Your task to perform on an android device: Check the news Image 0: 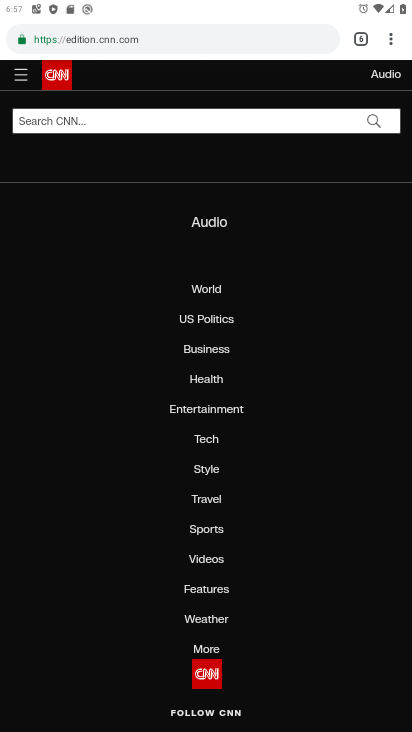
Step 0: press home button
Your task to perform on an android device: Check the news Image 1: 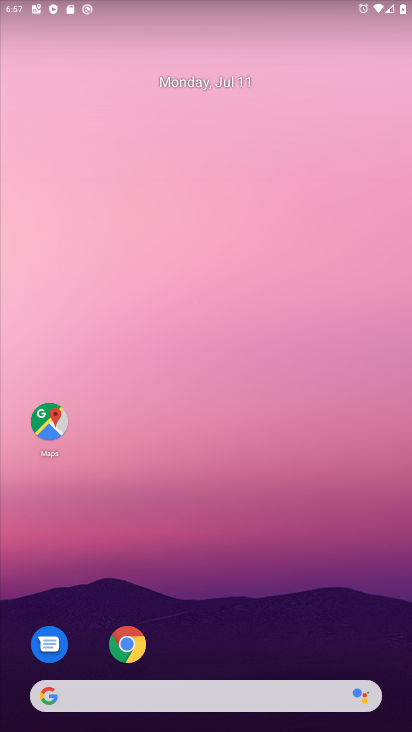
Step 1: drag from (174, 689) to (141, 17)
Your task to perform on an android device: Check the news Image 2: 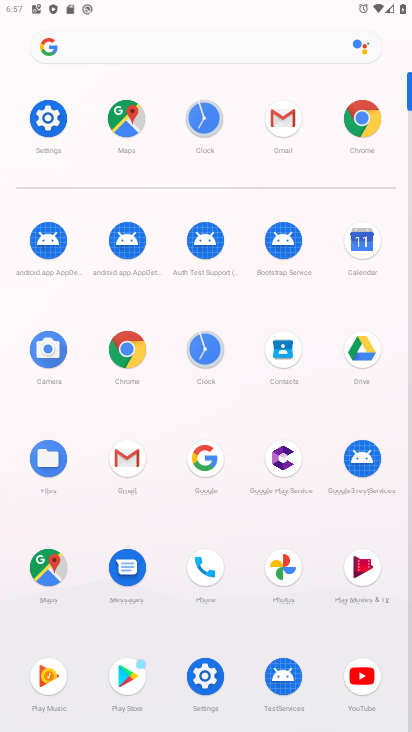
Step 2: click (136, 353)
Your task to perform on an android device: Check the news Image 3: 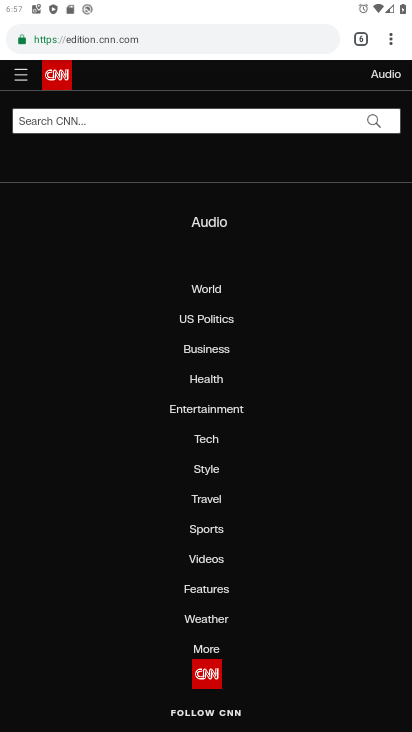
Step 3: click (192, 36)
Your task to perform on an android device: Check the news Image 4: 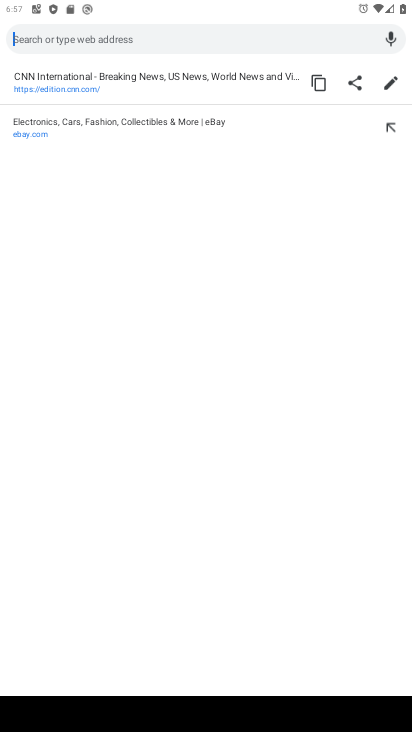
Step 4: type "check the news"
Your task to perform on an android device: Check the news Image 5: 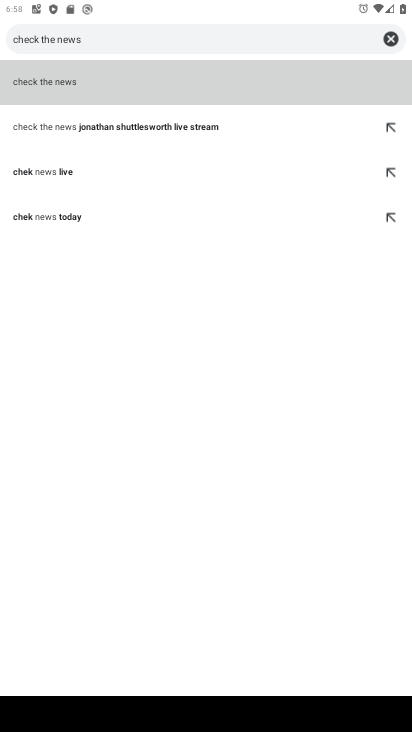
Step 5: click (72, 92)
Your task to perform on an android device: Check the news Image 6: 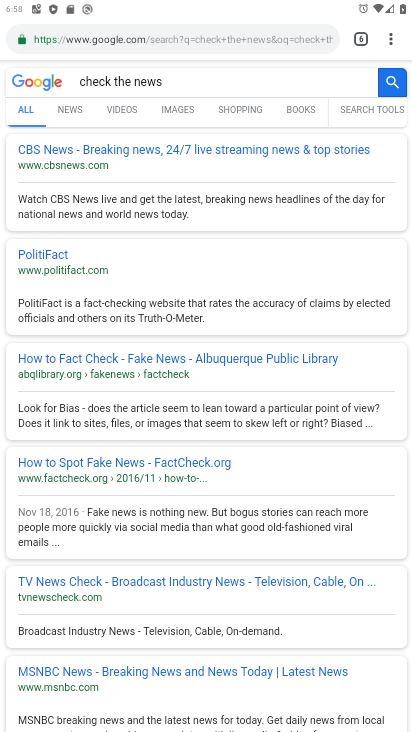
Step 6: task complete